Your task to perform on an android device: open chrome and create a bookmark for the current page Image 0: 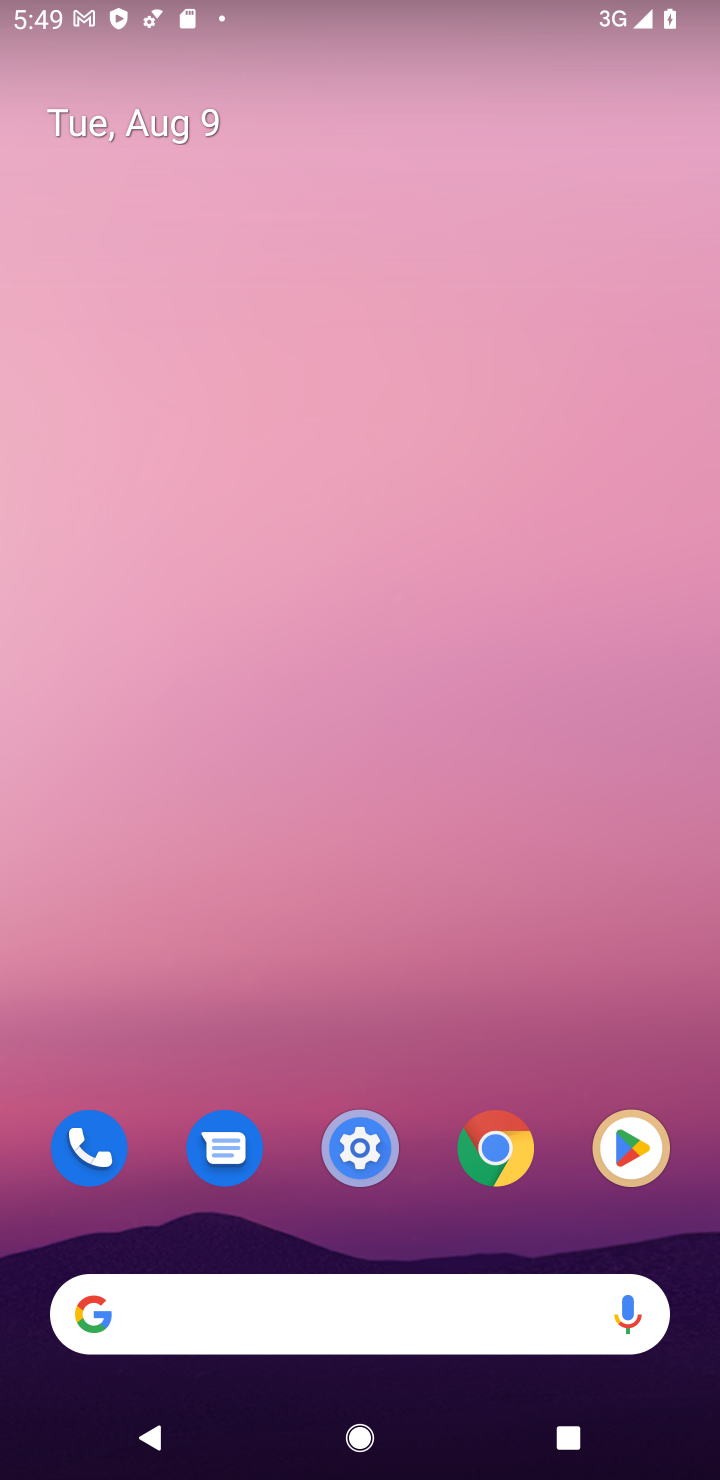
Step 0: click (490, 1151)
Your task to perform on an android device: open chrome and create a bookmark for the current page Image 1: 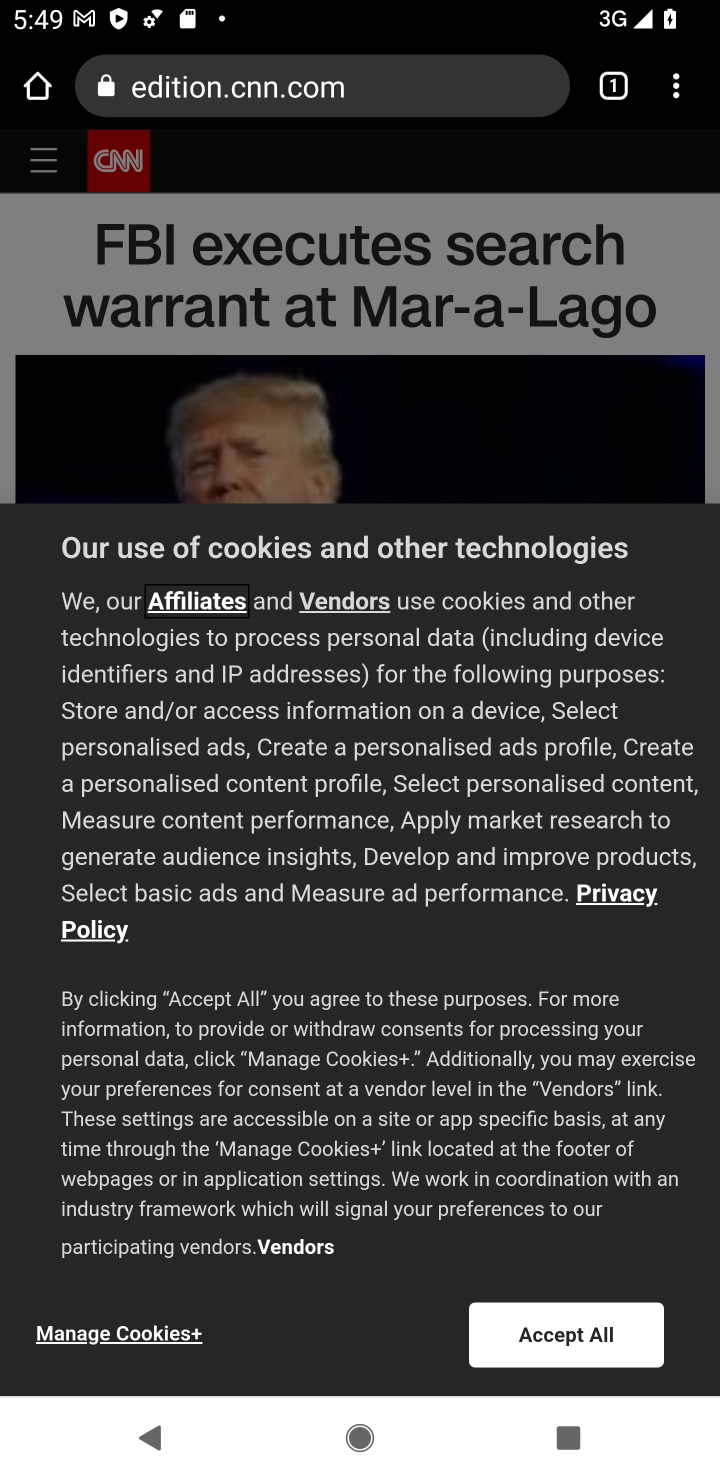
Step 1: click (674, 77)
Your task to perform on an android device: open chrome and create a bookmark for the current page Image 2: 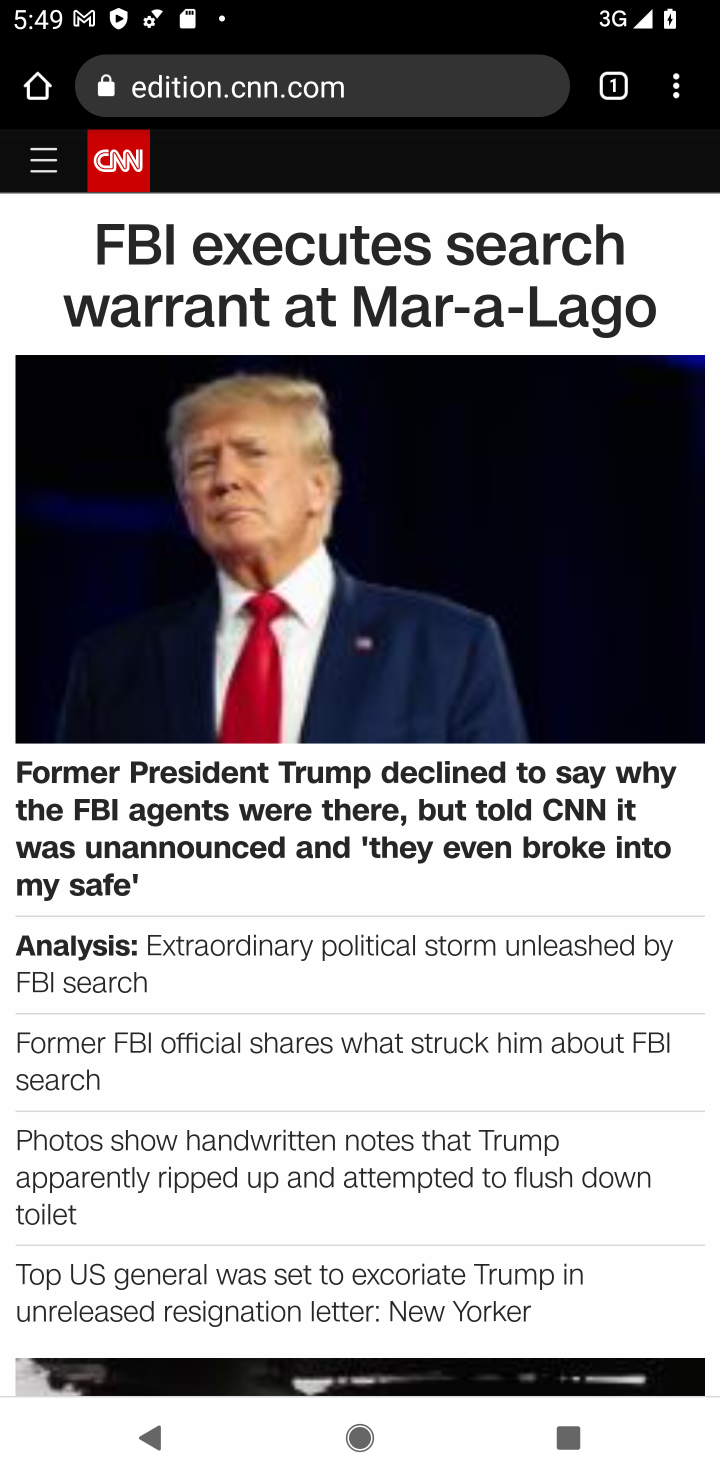
Step 2: click (663, 91)
Your task to perform on an android device: open chrome and create a bookmark for the current page Image 3: 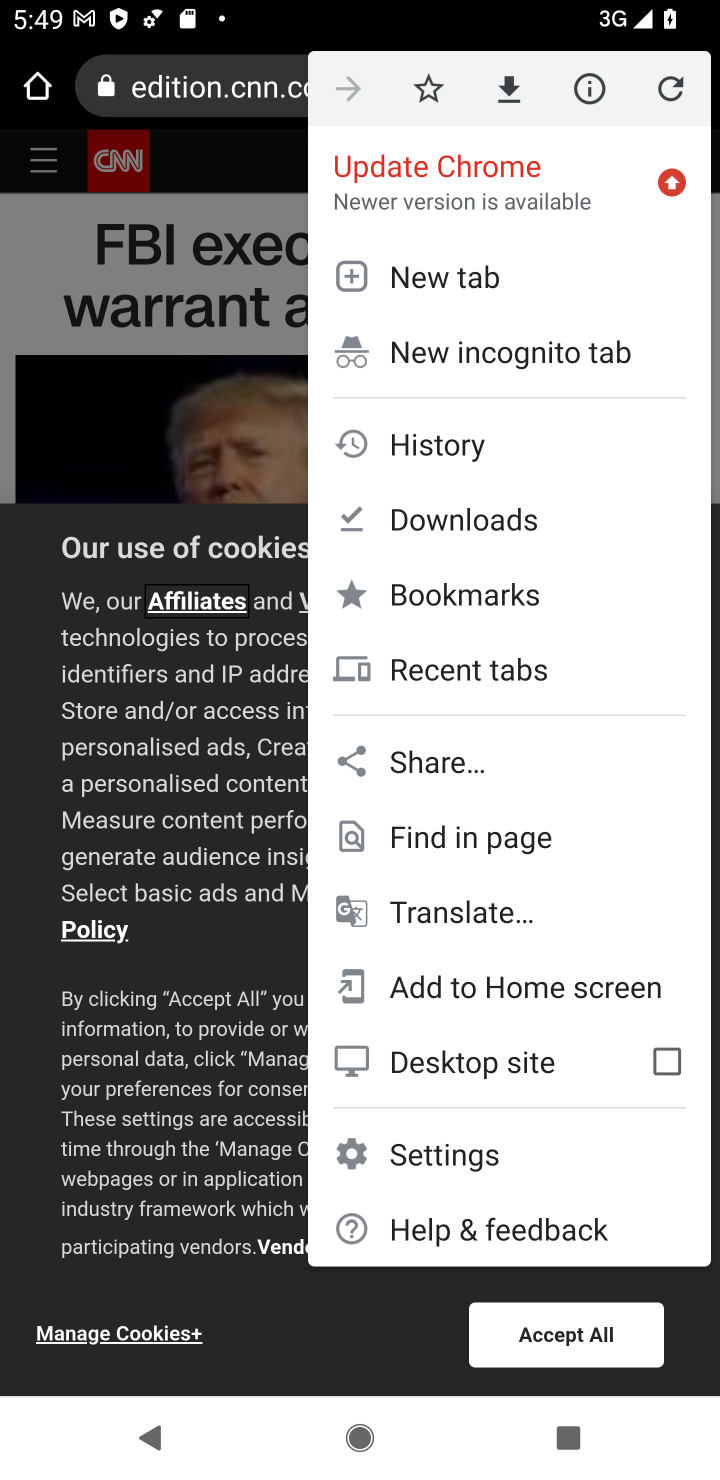
Step 3: click (425, 80)
Your task to perform on an android device: open chrome and create a bookmark for the current page Image 4: 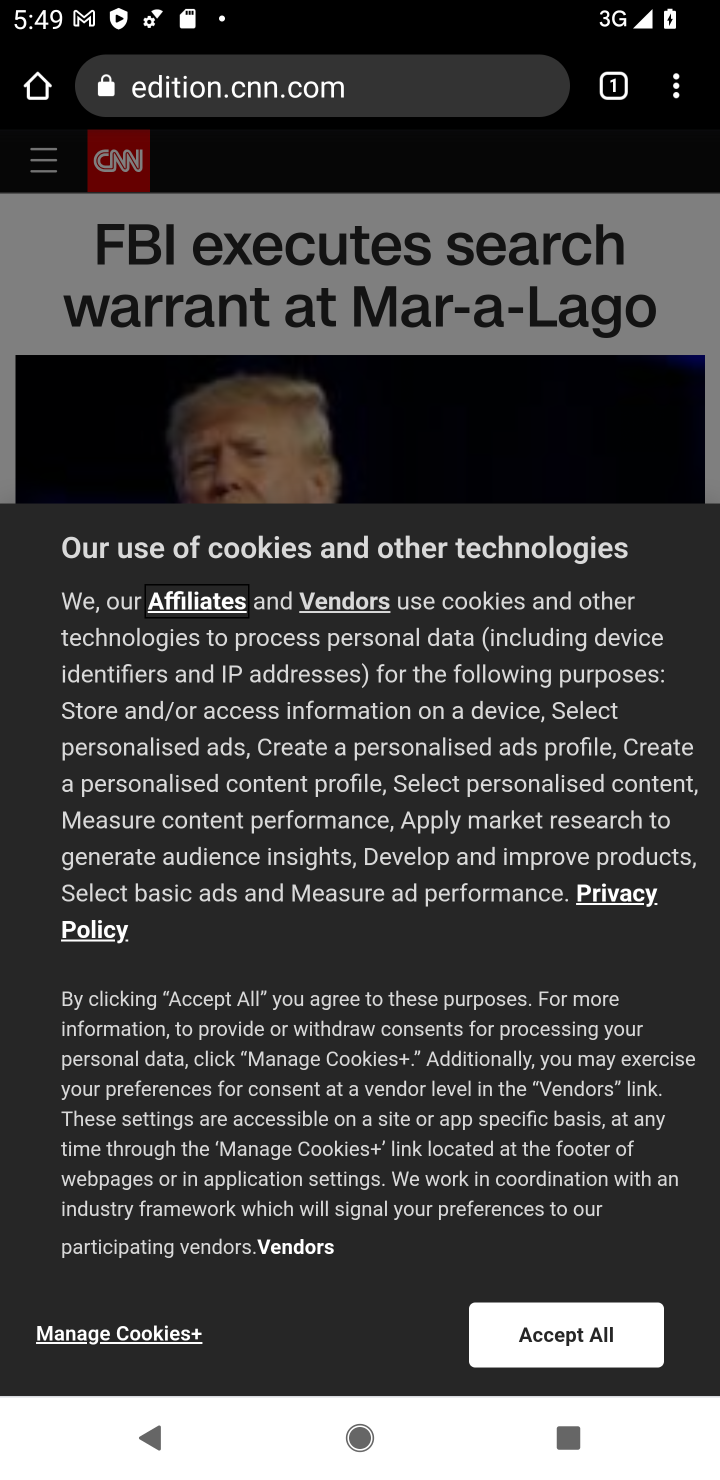
Step 4: task complete